Your task to perform on an android device: turn off location Image 0: 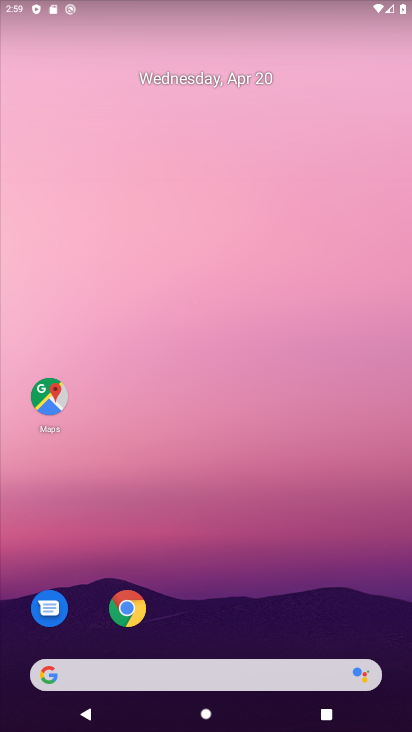
Step 0: drag from (219, 643) to (210, 15)
Your task to perform on an android device: turn off location Image 1: 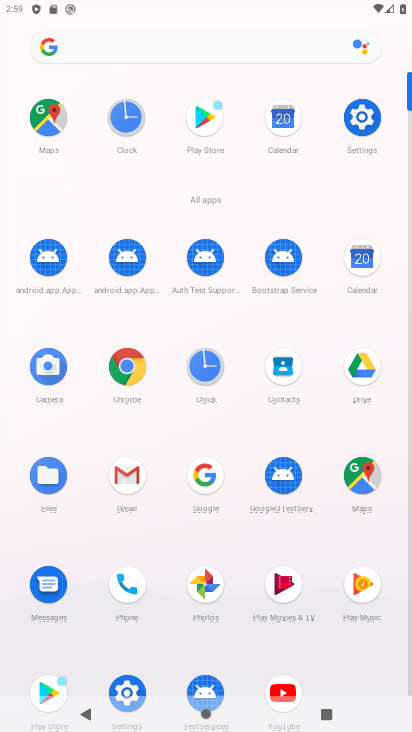
Step 1: click (365, 131)
Your task to perform on an android device: turn off location Image 2: 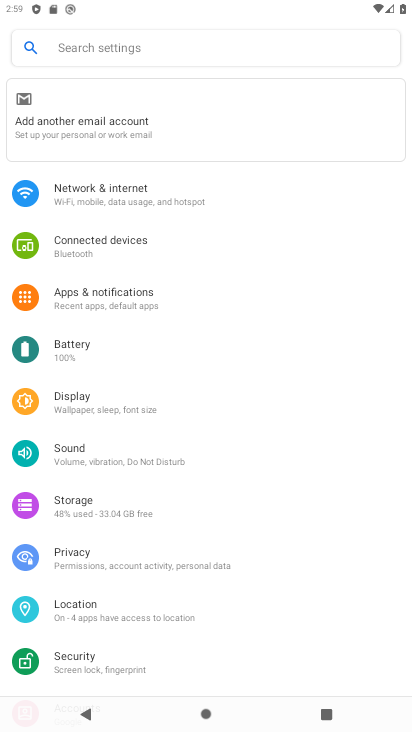
Step 2: click (50, 609)
Your task to perform on an android device: turn off location Image 3: 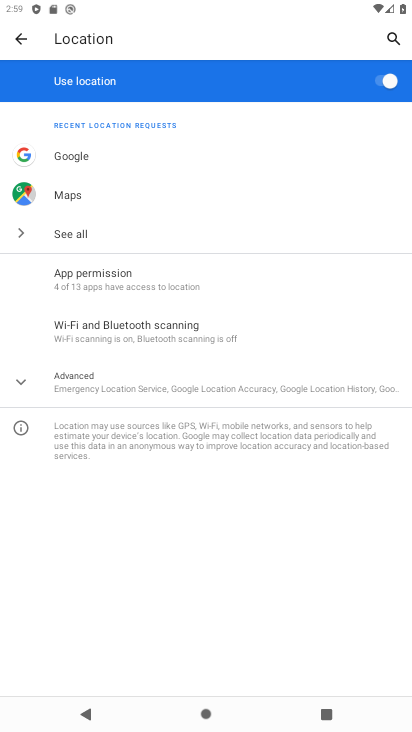
Step 3: click (375, 86)
Your task to perform on an android device: turn off location Image 4: 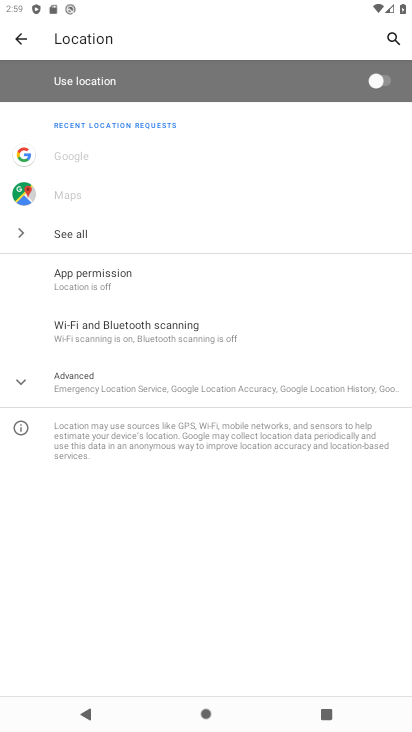
Step 4: task complete